Your task to perform on an android device: toggle location history Image 0: 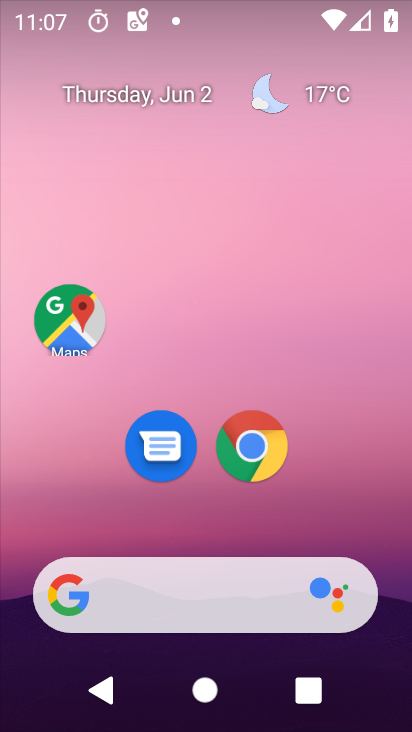
Step 0: drag from (375, 523) to (369, 153)
Your task to perform on an android device: toggle location history Image 1: 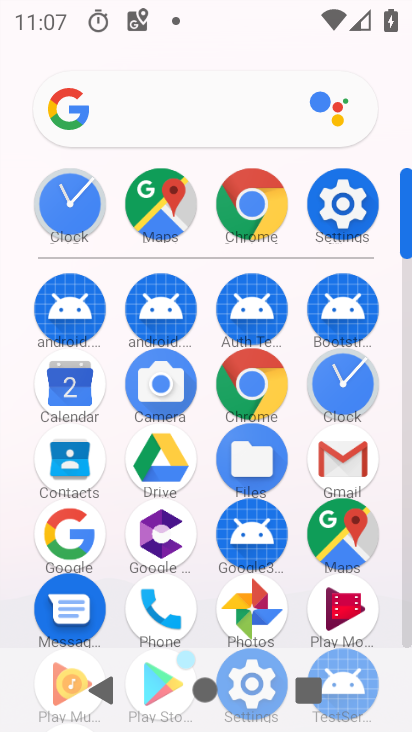
Step 1: click (353, 217)
Your task to perform on an android device: toggle location history Image 2: 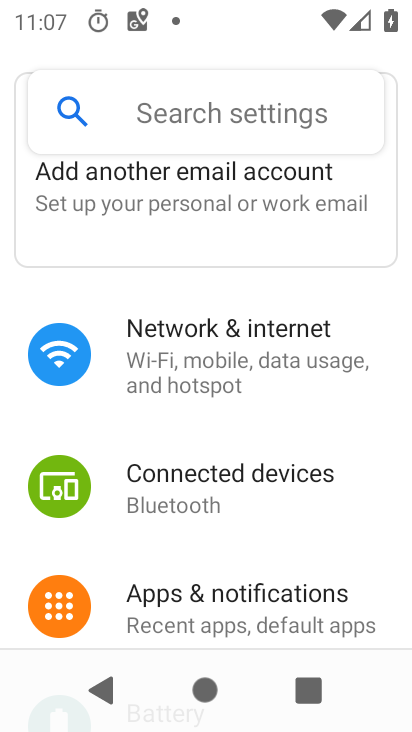
Step 2: drag from (366, 519) to (377, 419)
Your task to perform on an android device: toggle location history Image 3: 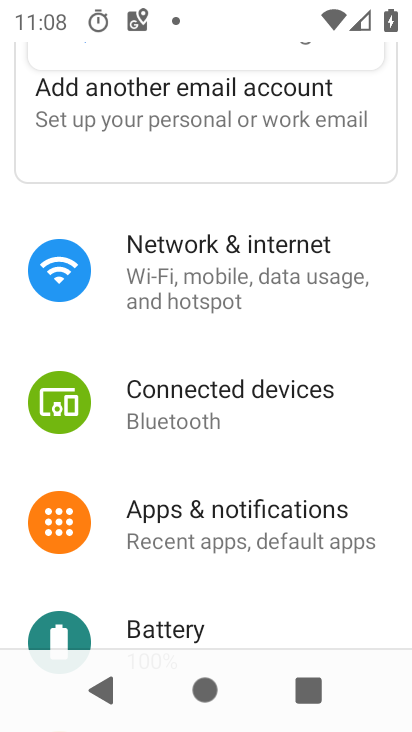
Step 3: drag from (378, 577) to (377, 436)
Your task to perform on an android device: toggle location history Image 4: 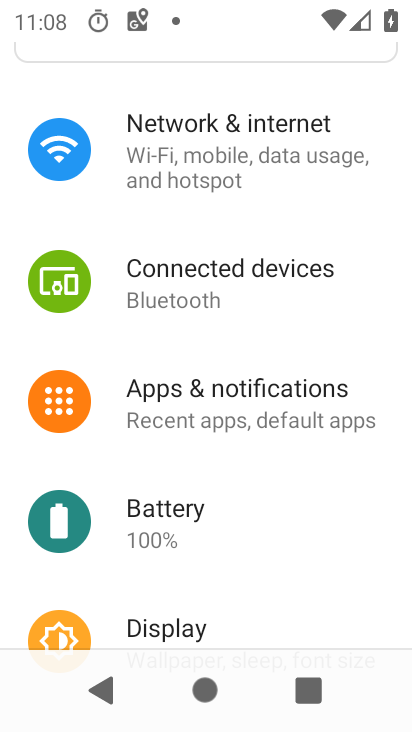
Step 4: drag from (375, 545) to (375, 399)
Your task to perform on an android device: toggle location history Image 5: 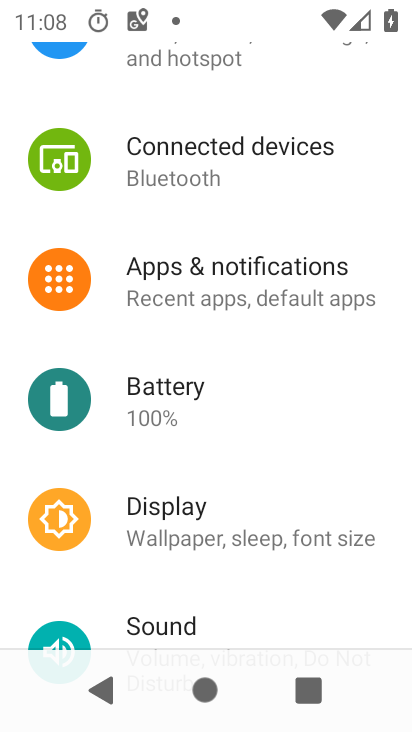
Step 5: drag from (376, 593) to (379, 434)
Your task to perform on an android device: toggle location history Image 6: 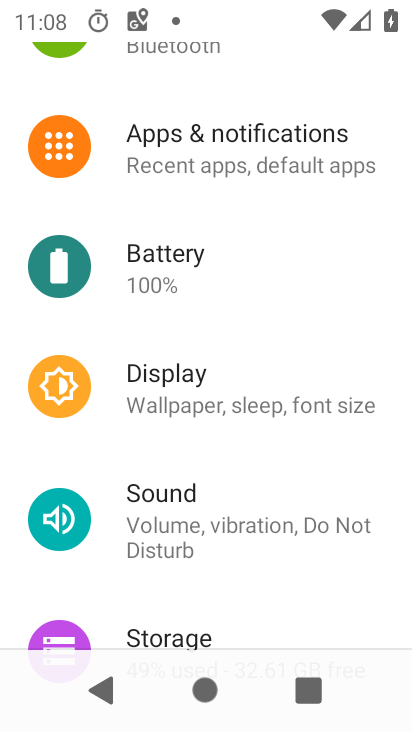
Step 6: drag from (373, 591) to (383, 428)
Your task to perform on an android device: toggle location history Image 7: 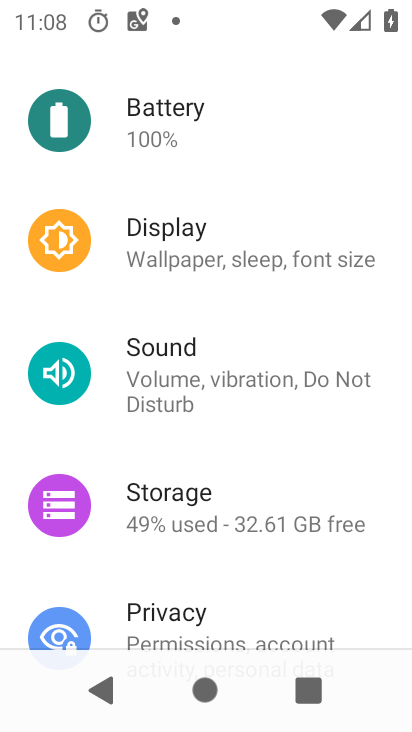
Step 7: drag from (379, 582) to (373, 399)
Your task to perform on an android device: toggle location history Image 8: 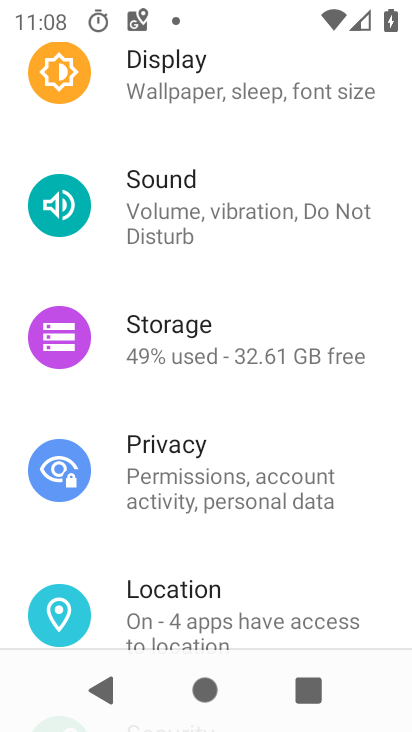
Step 8: drag from (363, 538) to (359, 377)
Your task to perform on an android device: toggle location history Image 9: 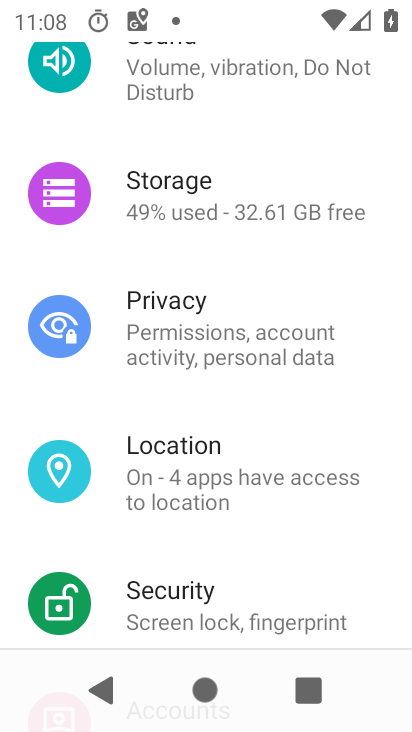
Step 9: click (313, 482)
Your task to perform on an android device: toggle location history Image 10: 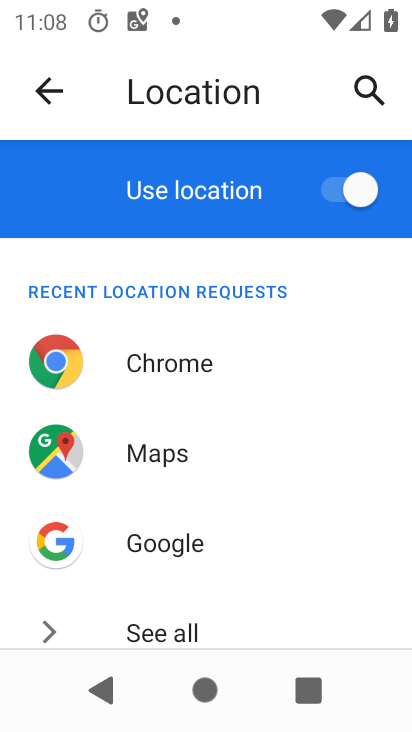
Step 10: drag from (310, 531) to (339, 349)
Your task to perform on an android device: toggle location history Image 11: 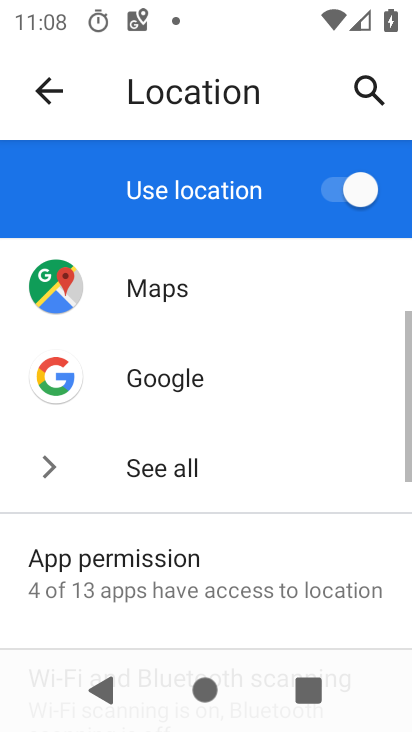
Step 11: drag from (329, 553) to (350, 373)
Your task to perform on an android device: toggle location history Image 12: 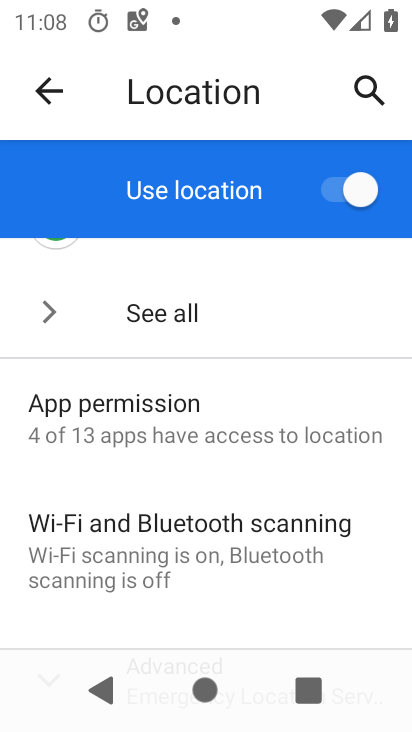
Step 12: drag from (367, 580) to (374, 404)
Your task to perform on an android device: toggle location history Image 13: 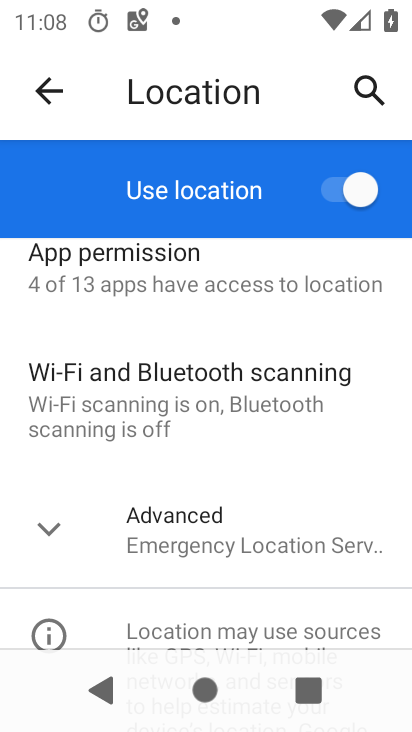
Step 13: click (340, 568)
Your task to perform on an android device: toggle location history Image 14: 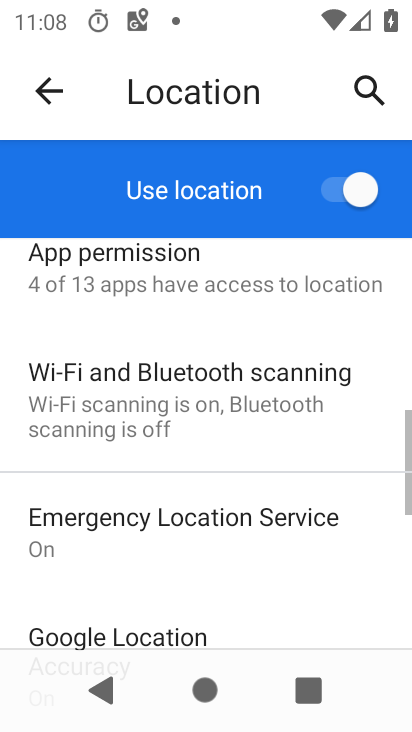
Step 14: drag from (361, 558) to (364, 432)
Your task to perform on an android device: toggle location history Image 15: 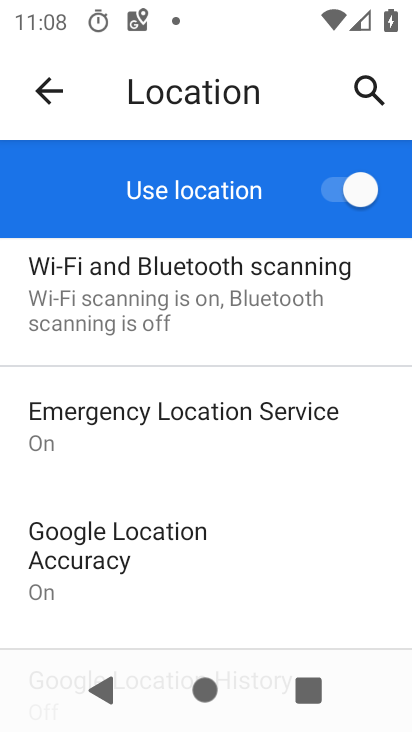
Step 15: drag from (348, 596) to (363, 440)
Your task to perform on an android device: toggle location history Image 16: 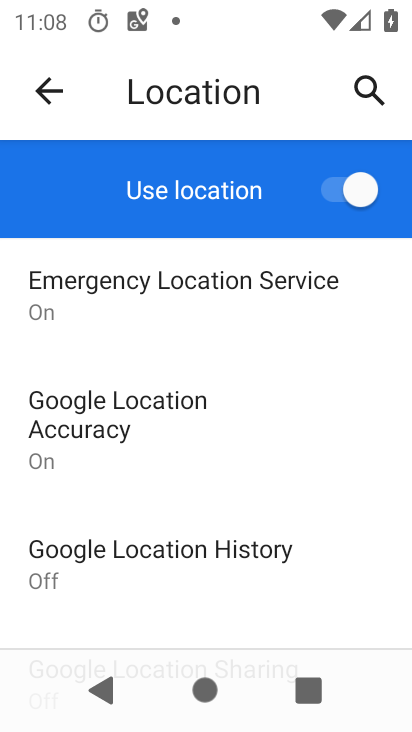
Step 16: click (292, 570)
Your task to perform on an android device: toggle location history Image 17: 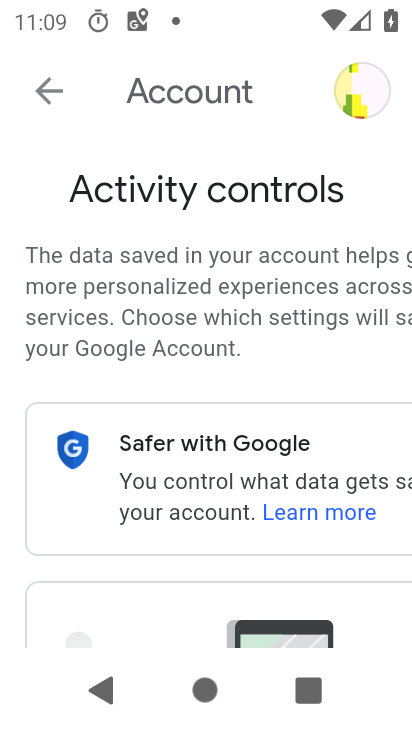
Step 17: drag from (249, 414) to (273, 234)
Your task to perform on an android device: toggle location history Image 18: 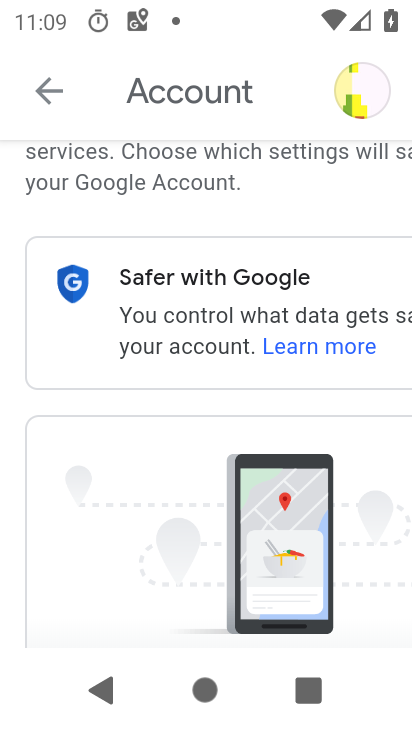
Step 18: drag from (203, 493) to (218, 325)
Your task to perform on an android device: toggle location history Image 19: 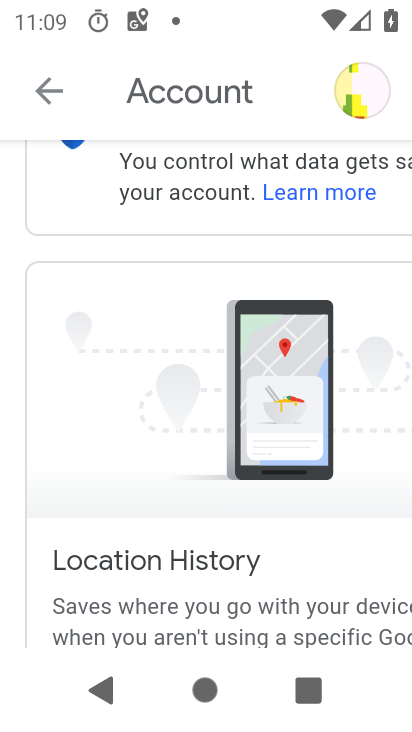
Step 19: drag from (216, 485) to (222, 227)
Your task to perform on an android device: toggle location history Image 20: 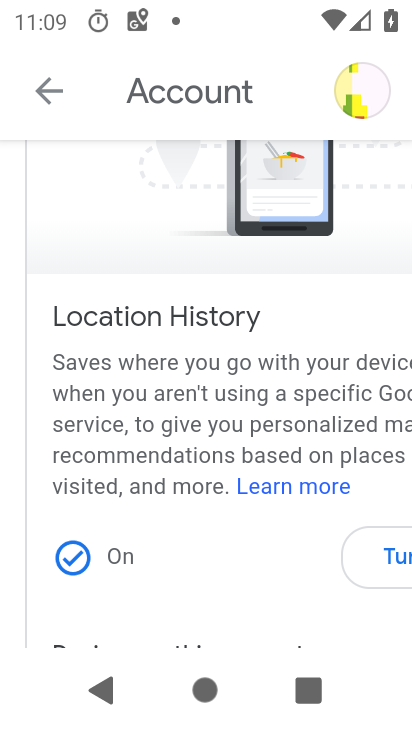
Step 20: click (374, 567)
Your task to perform on an android device: toggle location history Image 21: 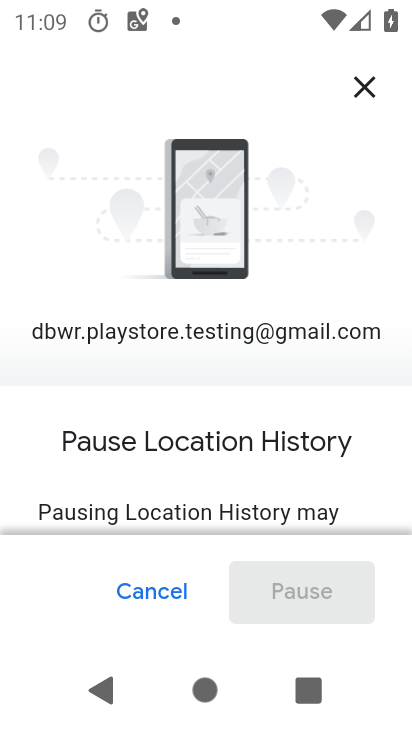
Step 21: drag from (291, 453) to (284, 297)
Your task to perform on an android device: toggle location history Image 22: 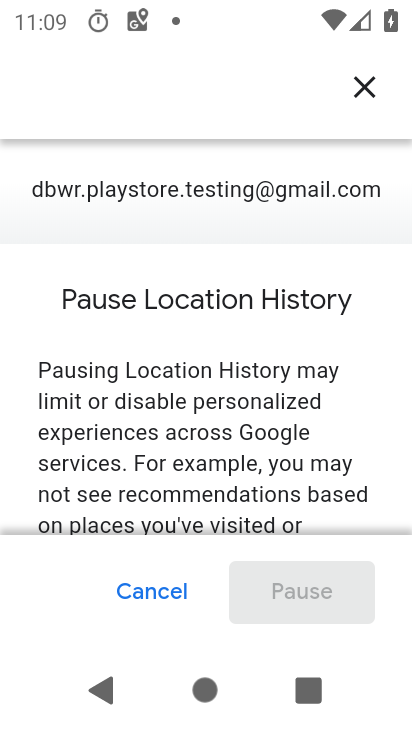
Step 22: drag from (263, 450) to (270, 303)
Your task to perform on an android device: toggle location history Image 23: 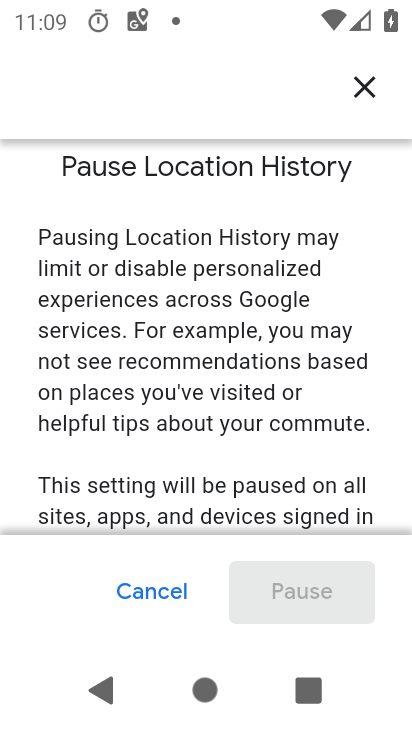
Step 23: drag from (272, 425) to (271, 271)
Your task to perform on an android device: toggle location history Image 24: 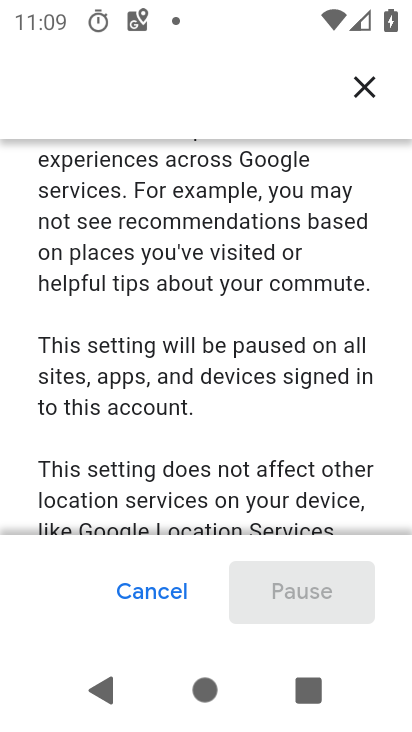
Step 24: drag from (269, 429) to (270, 255)
Your task to perform on an android device: toggle location history Image 25: 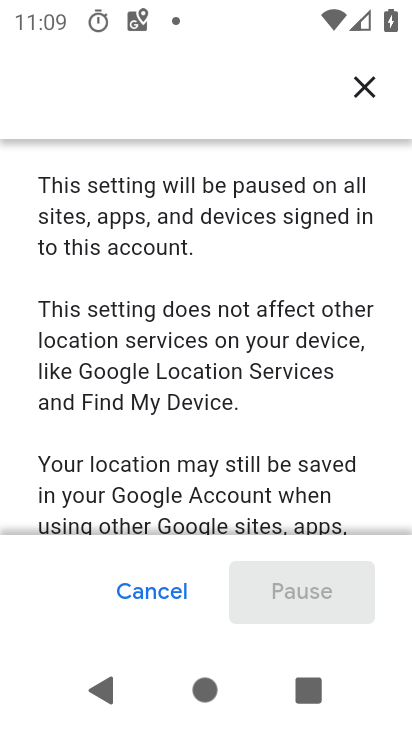
Step 25: drag from (257, 422) to (260, 242)
Your task to perform on an android device: toggle location history Image 26: 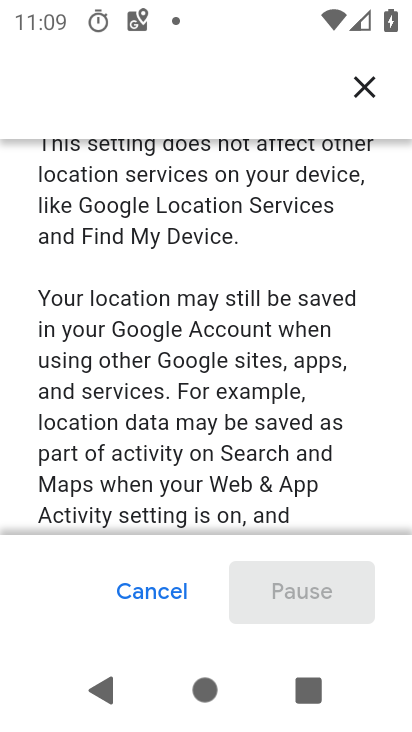
Step 26: drag from (260, 421) to (261, 224)
Your task to perform on an android device: toggle location history Image 27: 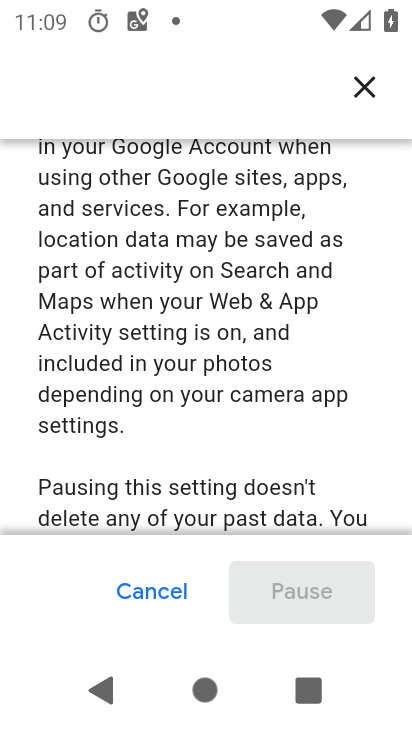
Step 27: drag from (249, 431) to (248, 292)
Your task to perform on an android device: toggle location history Image 28: 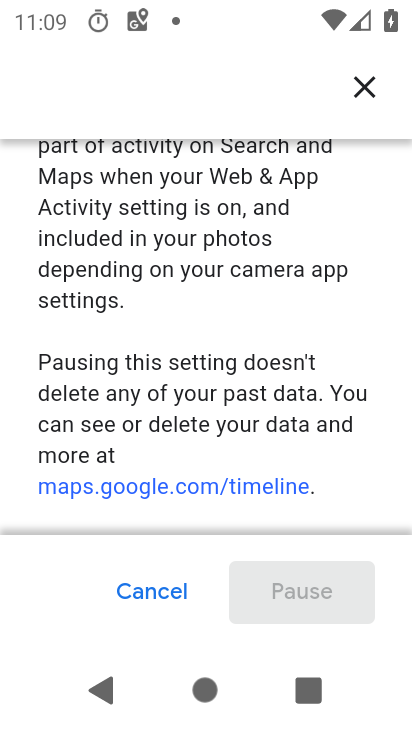
Step 28: drag from (271, 434) to (268, 282)
Your task to perform on an android device: toggle location history Image 29: 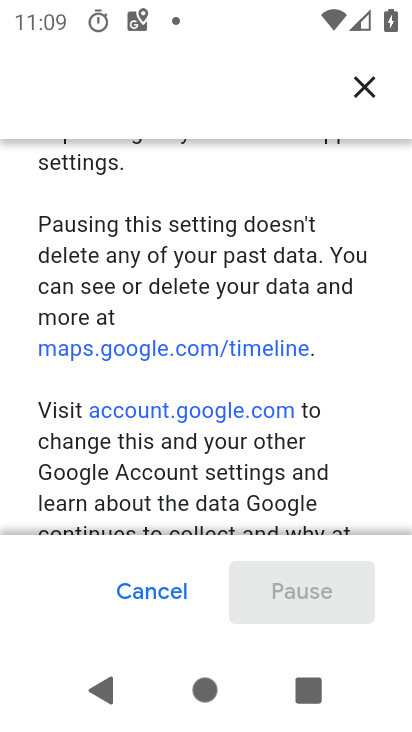
Step 29: drag from (342, 434) to (345, 252)
Your task to perform on an android device: toggle location history Image 30: 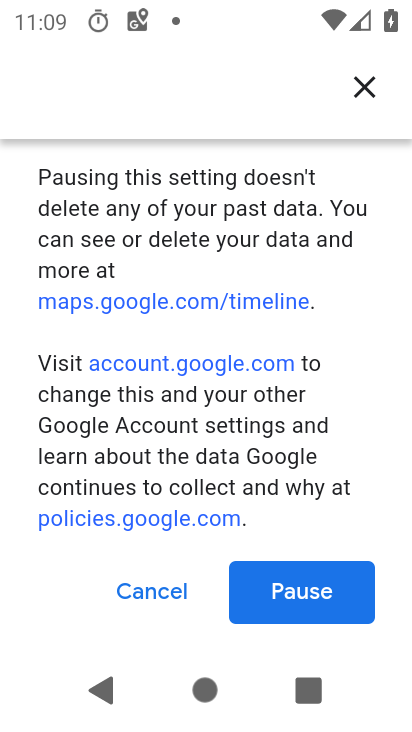
Step 30: click (305, 582)
Your task to perform on an android device: toggle location history Image 31: 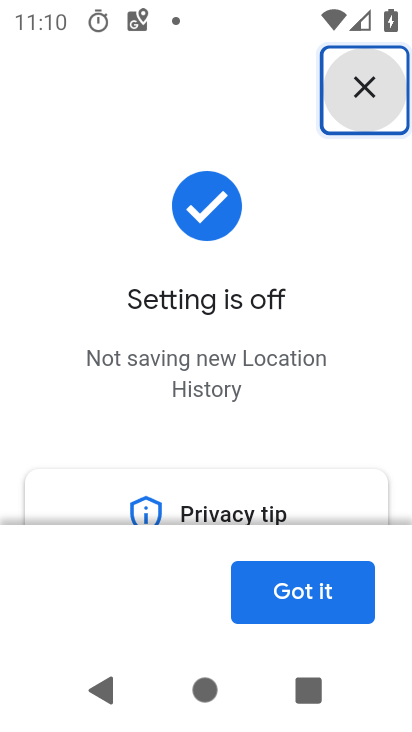
Step 31: task complete